Your task to perform on an android device: manage bookmarks in the chrome app Image 0: 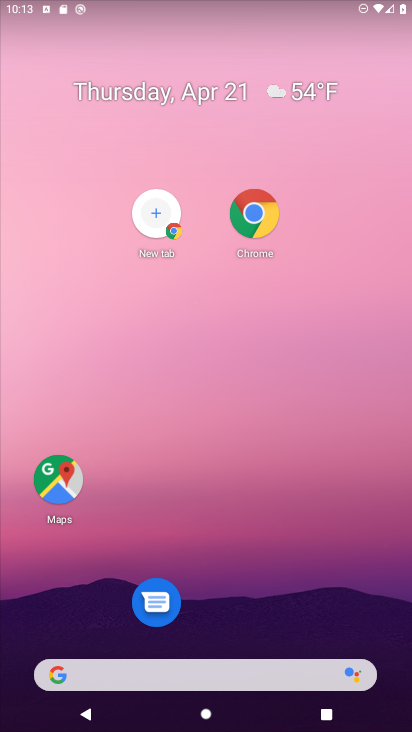
Step 0: click (256, 214)
Your task to perform on an android device: manage bookmarks in the chrome app Image 1: 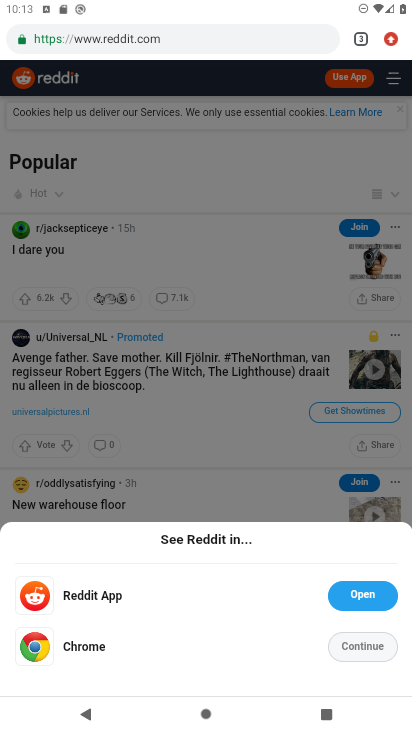
Step 1: click (398, 45)
Your task to perform on an android device: manage bookmarks in the chrome app Image 2: 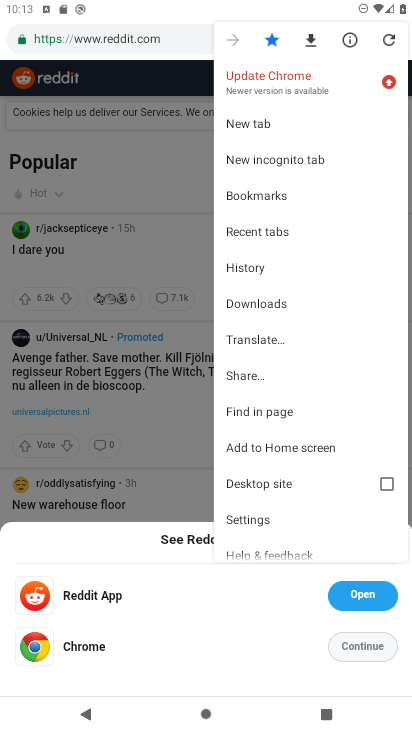
Step 2: click (280, 194)
Your task to perform on an android device: manage bookmarks in the chrome app Image 3: 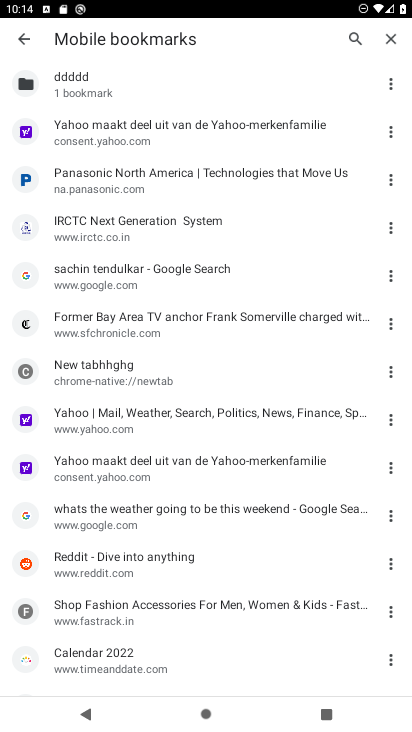
Step 3: click (393, 603)
Your task to perform on an android device: manage bookmarks in the chrome app Image 4: 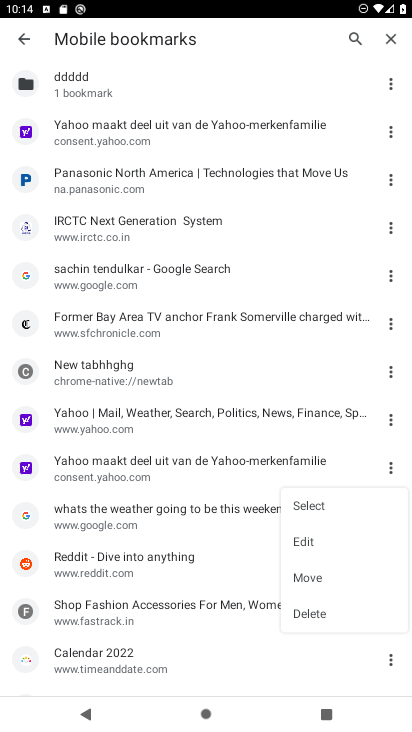
Step 4: click (394, 657)
Your task to perform on an android device: manage bookmarks in the chrome app Image 5: 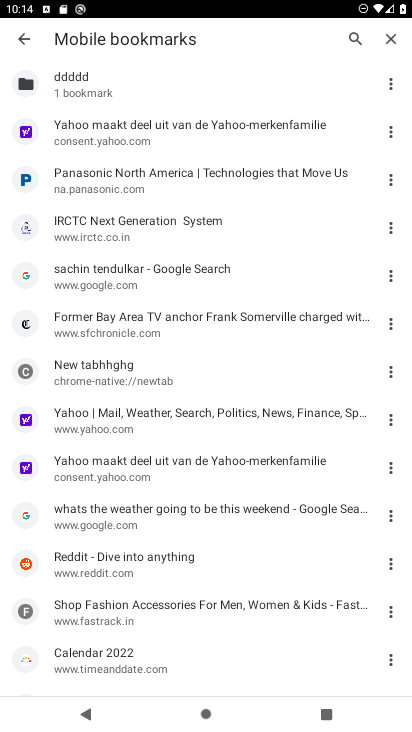
Step 5: click (394, 657)
Your task to perform on an android device: manage bookmarks in the chrome app Image 6: 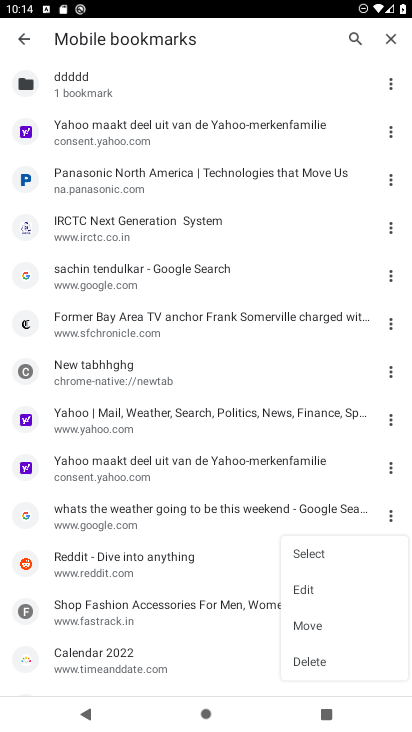
Step 6: click (323, 664)
Your task to perform on an android device: manage bookmarks in the chrome app Image 7: 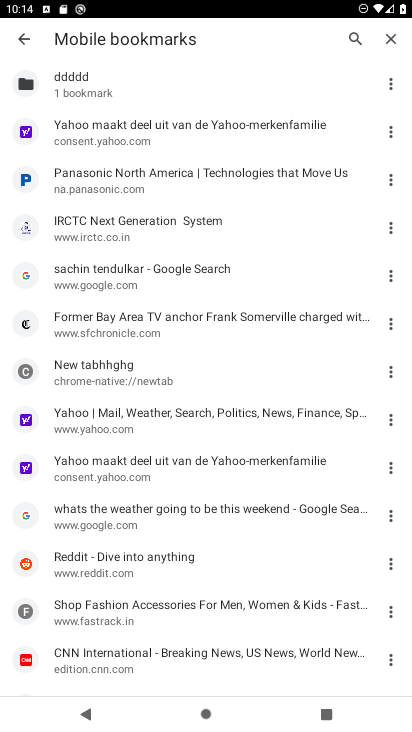
Step 7: task complete